Your task to perform on an android device: toggle show notifications on the lock screen Image 0: 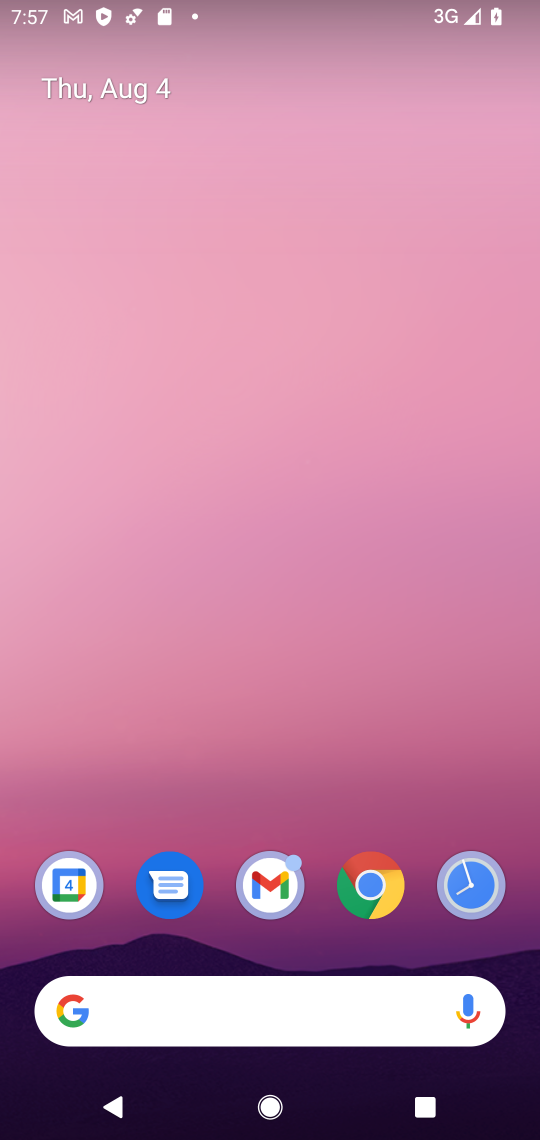
Step 0: drag from (402, 898) to (464, 103)
Your task to perform on an android device: toggle show notifications on the lock screen Image 1: 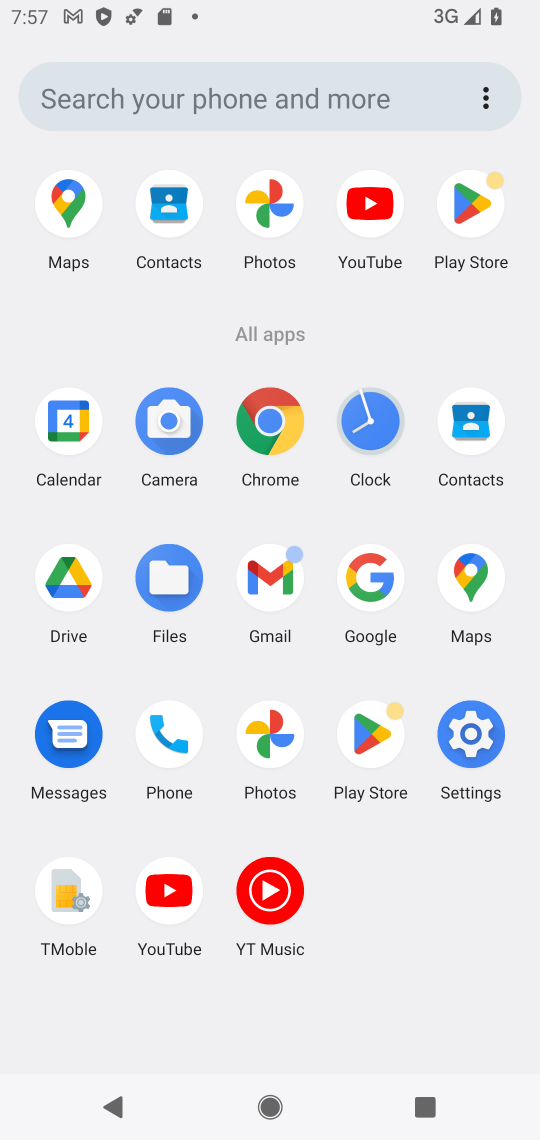
Step 1: click (473, 733)
Your task to perform on an android device: toggle show notifications on the lock screen Image 2: 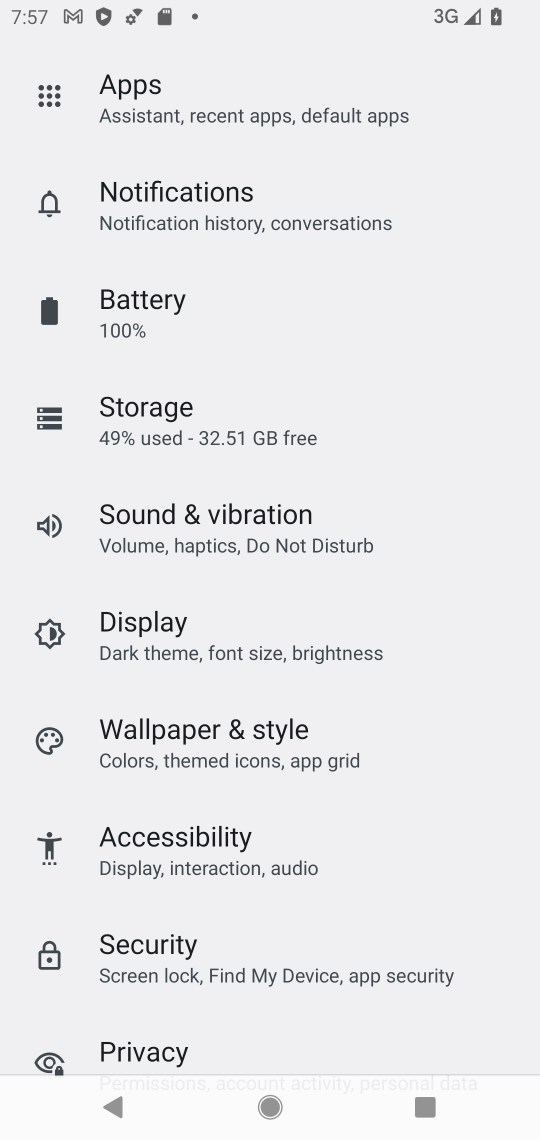
Step 2: click (194, 201)
Your task to perform on an android device: toggle show notifications on the lock screen Image 3: 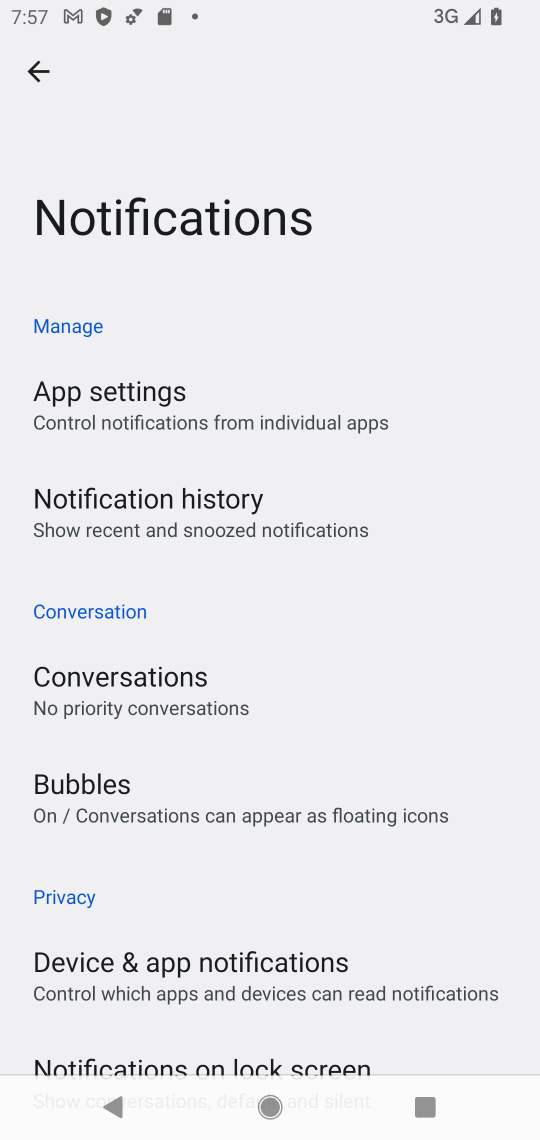
Step 3: drag from (232, 968) to (237, 286)
Your task to perform on an android device: toggle show notifications on the lock screen Image 4: 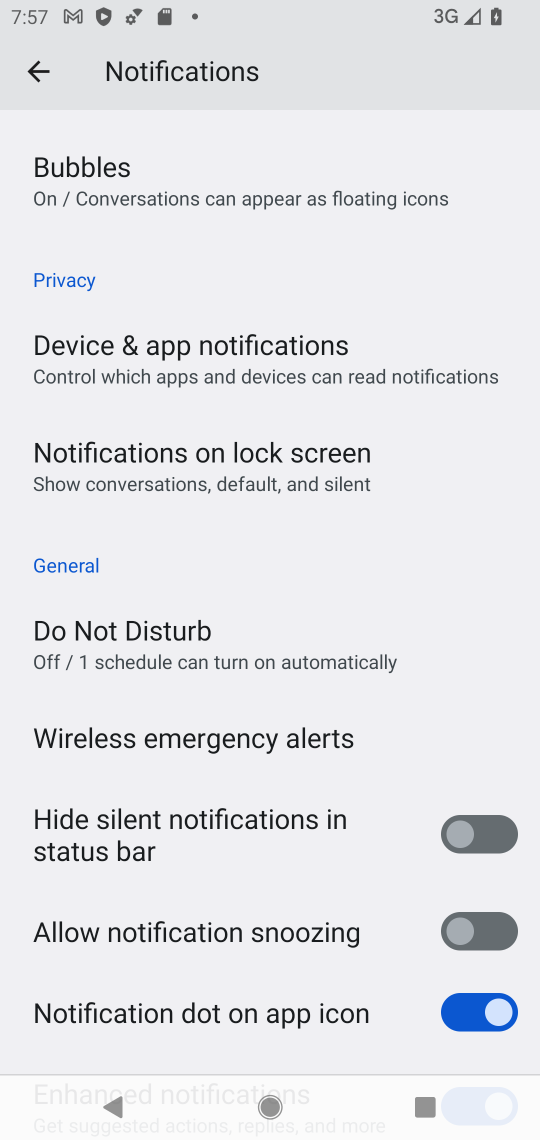
Step 4: click (251, 484)
Your task to perform on an android device: toggle show notifications on the lock screen Image 5: 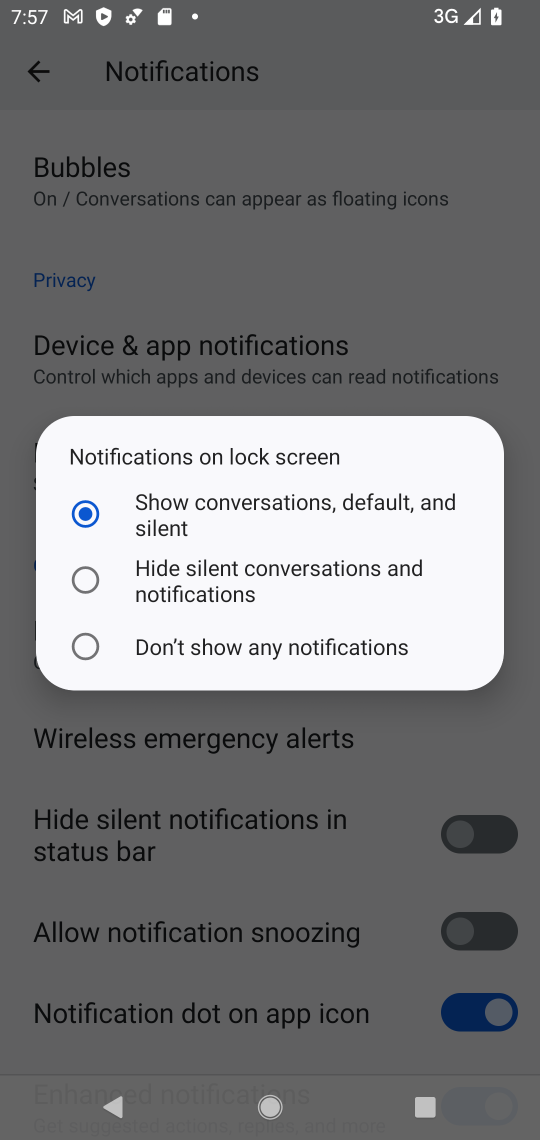
Step 5: click (242, 651)
Your task to perform on an android device: toggle show notifications on the lock screen Image 6: 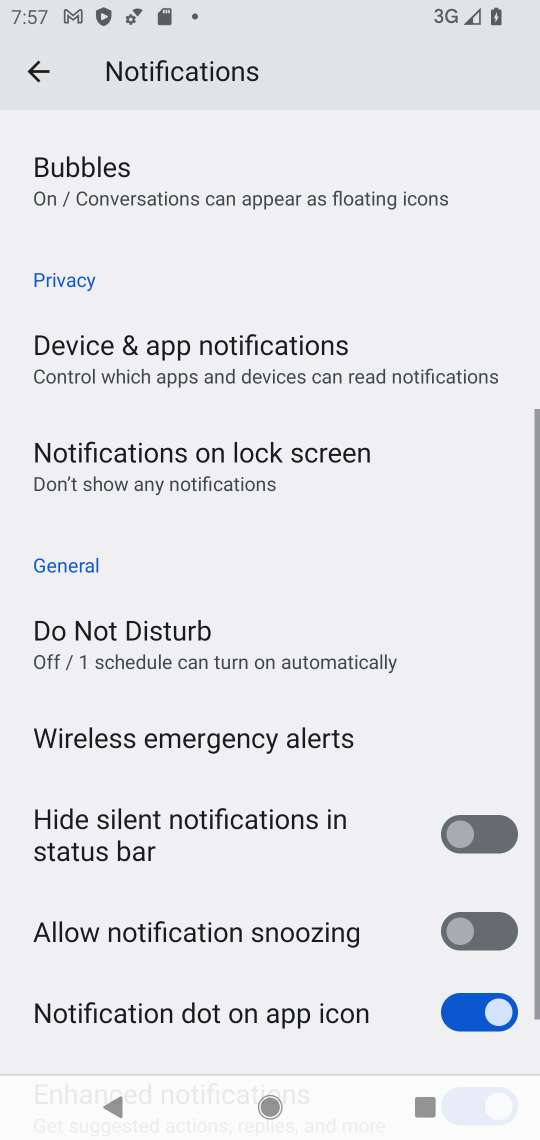
Step 6: task complete